Your task to perform on an android device: toggle notification dots Image 0: 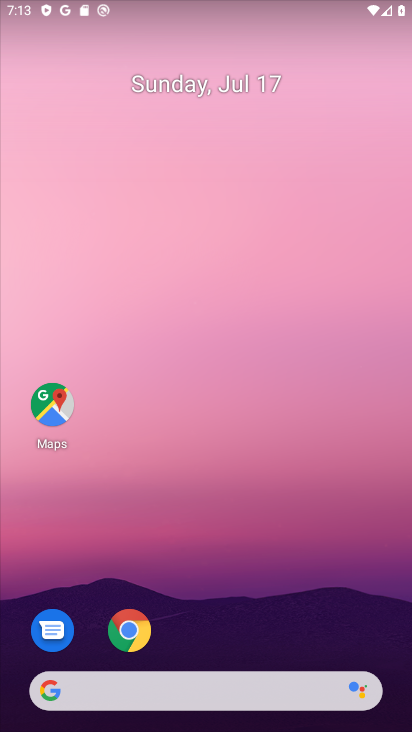
Step 0: drag from (180, 258) to (260, 3)
Your task to perform on an android device: toggle notification dots Image 1: 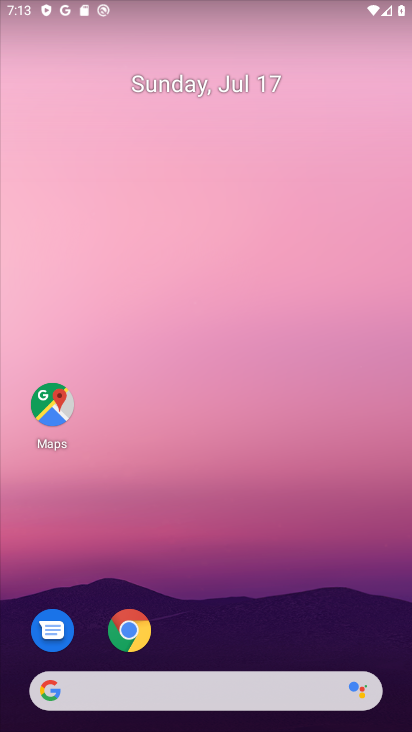
Step 1: drag from (230, 68) to (329, 75)
Your task to perform on an android device: toggle notification dots Image 2: 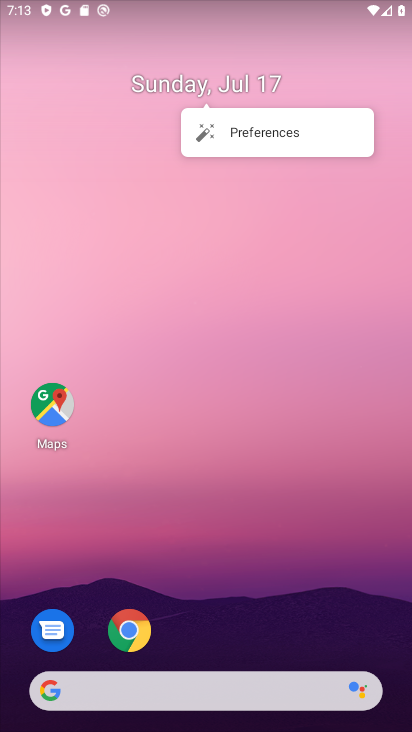
Step 2: click (199, 531)
Your task to perform on an android device: toggle notification dots Image 3: 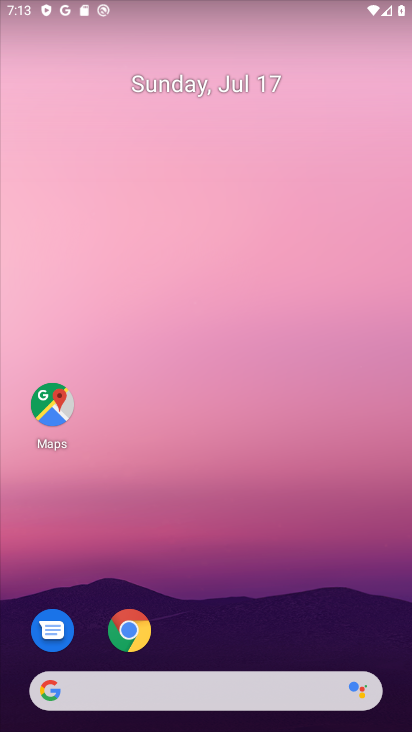
Step 3: drag from (229, 225) to (276, 24)
Your task to perform on an android device: toggle notification dots Image 4: 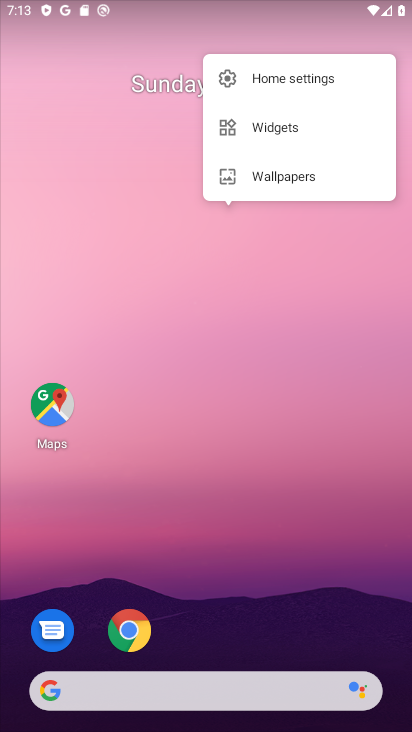
Step 4: click (216, 588)
Your task to perform on an android device: toggle notification dots Image 5: 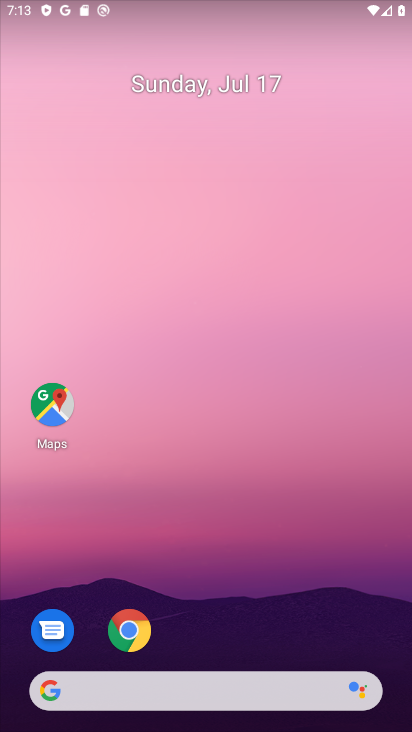
Step 5: drag from (169, 550) to (207, 15)
Your task to perform on an android device: toggle notification dots Image 6: 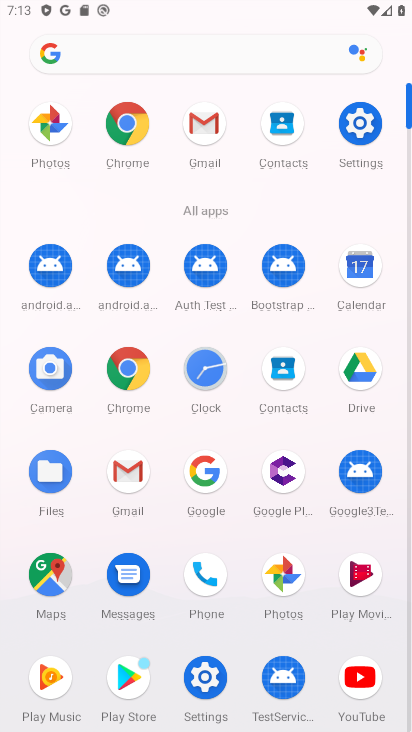
Step 6: click (363, 127)
Your task to perform on an android device: toggle notification dots Image 7: 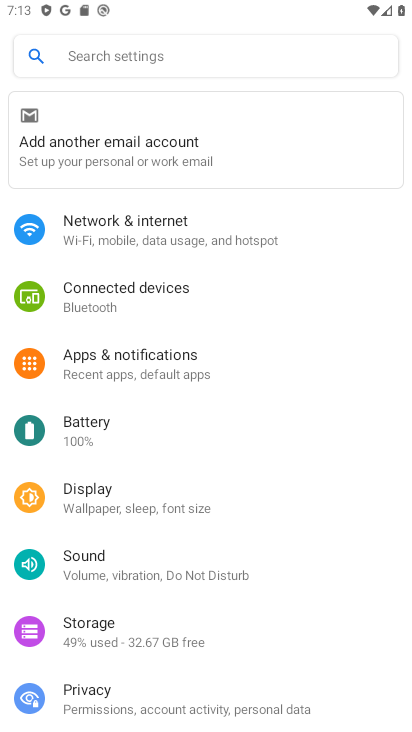
Step 7: click (169, 380)
Your task to perform on an android device: toggle notification dots Image 8: 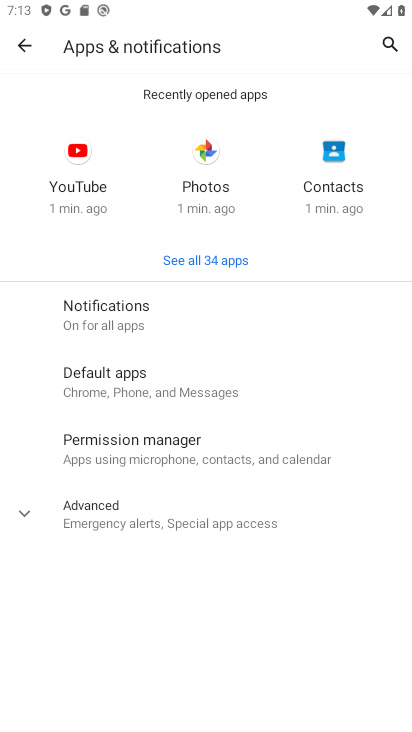
Step 8: click (100, 305)
Your task to perform on an android device: toggle notification dots Image 9: 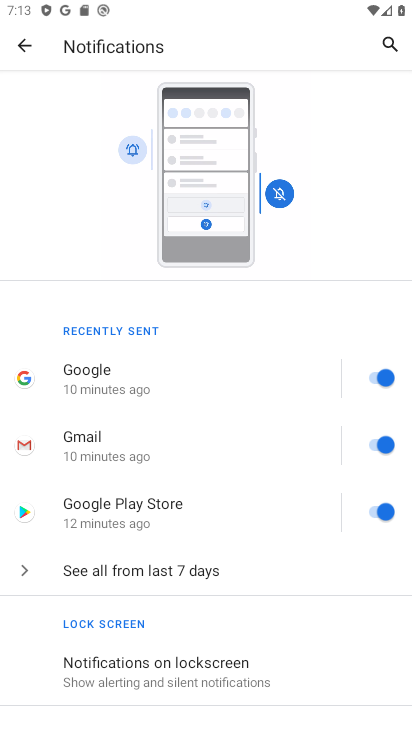
Step 9: click (235, 440)
Your task to perform on an android device: toggle notification dots Image 10: 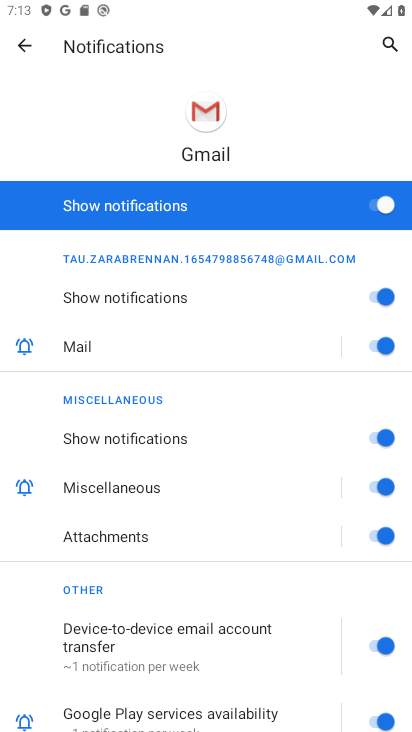
Step 10: click (23, 49)
Your task to perform on an android device: toggle notification dots Image 11: 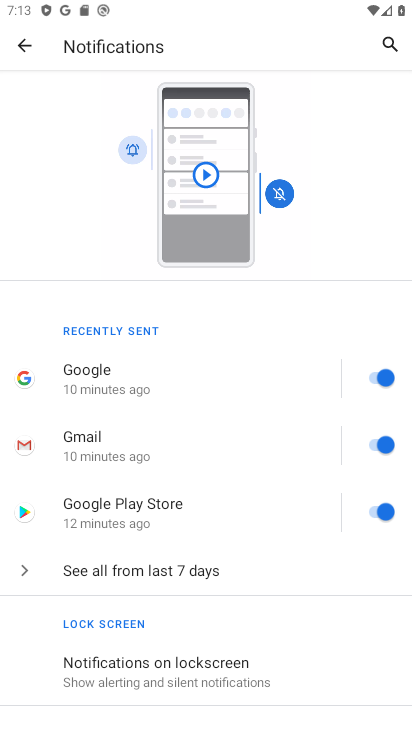
Step 11: drag from (181, 617) to (270, 242)
Your task to perform on an android device: toggle notification dots Image 12: 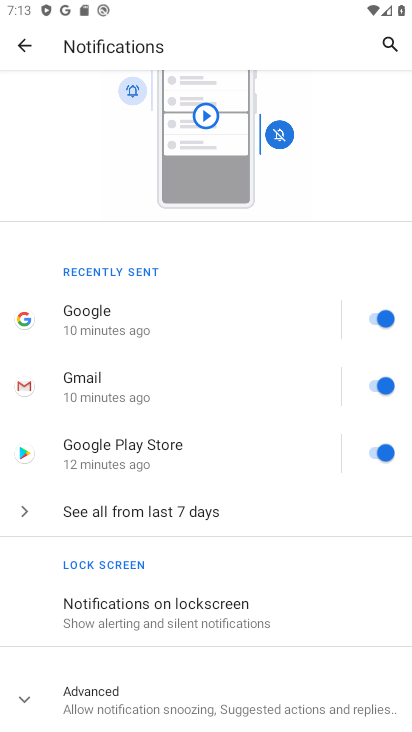
Step 12: click (139, 704)
Your task to perform on an android device: toggle notification dots Image 13: 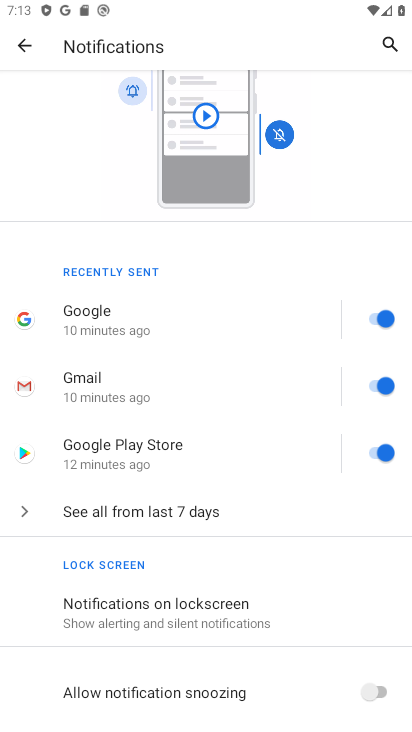
Step 13: drag from (196, 581) to (289, 247)
Your task to perform on an android device: toggle notification dots Image 14: 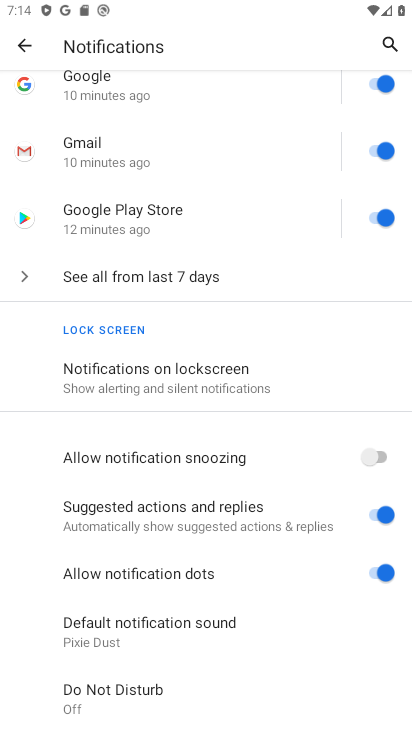
Step 14: click (372, 566)
Your task to perform on an android device: toggle notification dots Image 15: 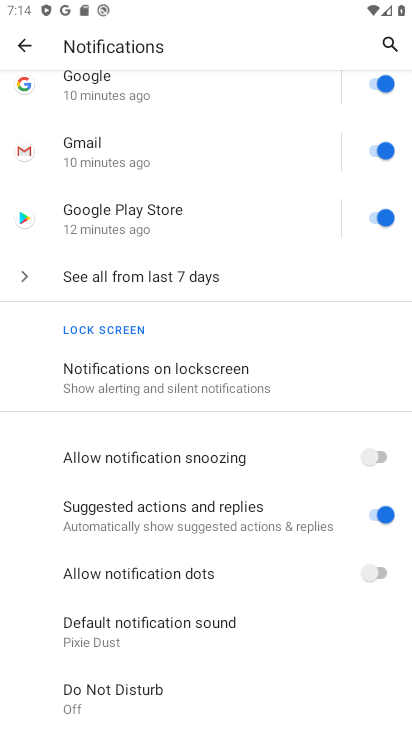
Step 15: task complete